Your task to perform on an android device: Go to internet settings Image 0: 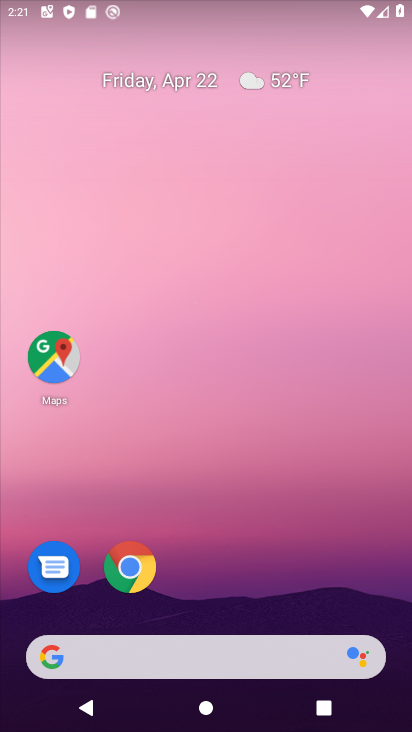
Step 0: drag from (277, 584) to (256, 67)
Your task to perform on an android device: Go to internet settings Image 1: 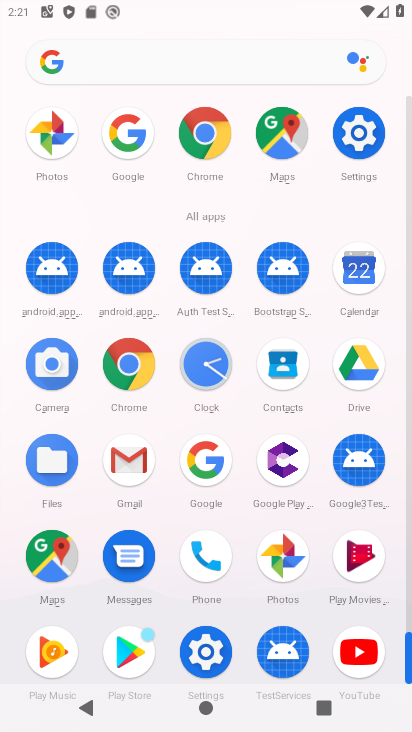
Step 1: click (356, 139)
Your task to perform on an android device: Go to internet settings Image 2: 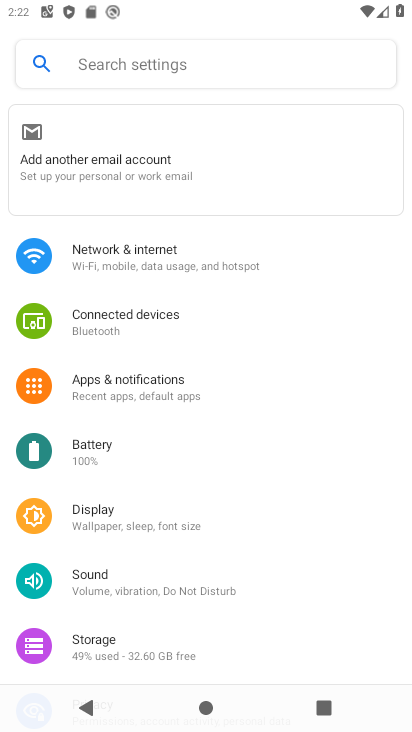
Step 2: click (172, 262)
Your task to perform on an android device: Go to internet settings Image 3: 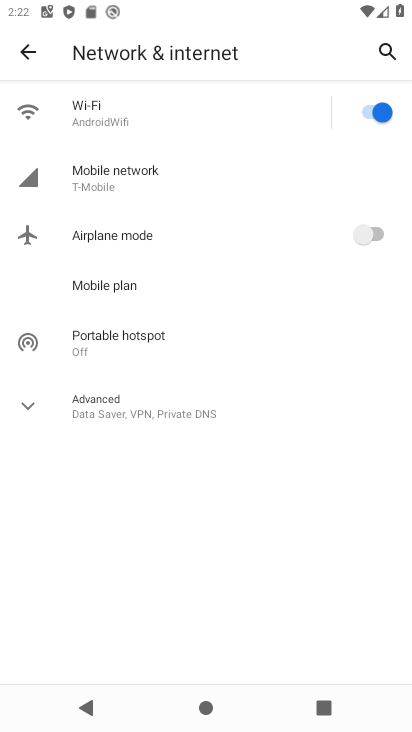
Step 3: task complete